Your task to perform on an android device: check storage Image 0: 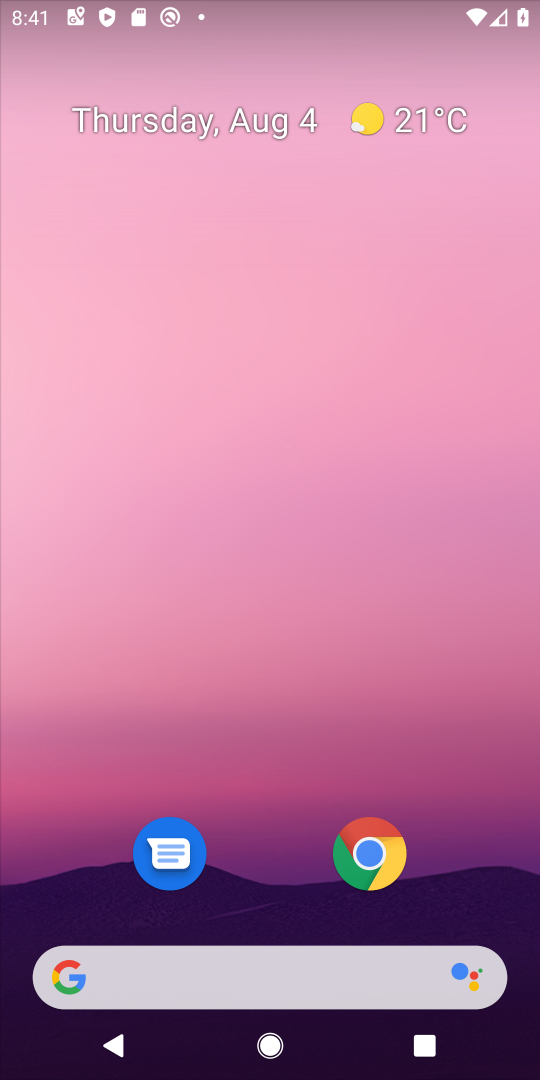
Step 0: drag from (237, 712) to (246, 147)
Your task to perform on an android device: check storage Image 1: 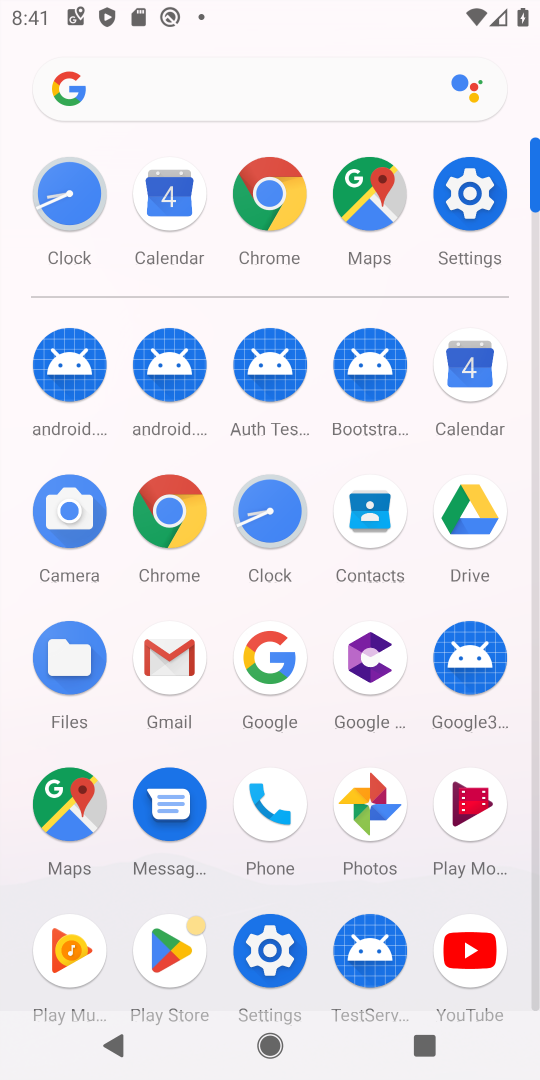
Step 1: click (491, 189)
Your task to perform on an android device: check storage Image 2: 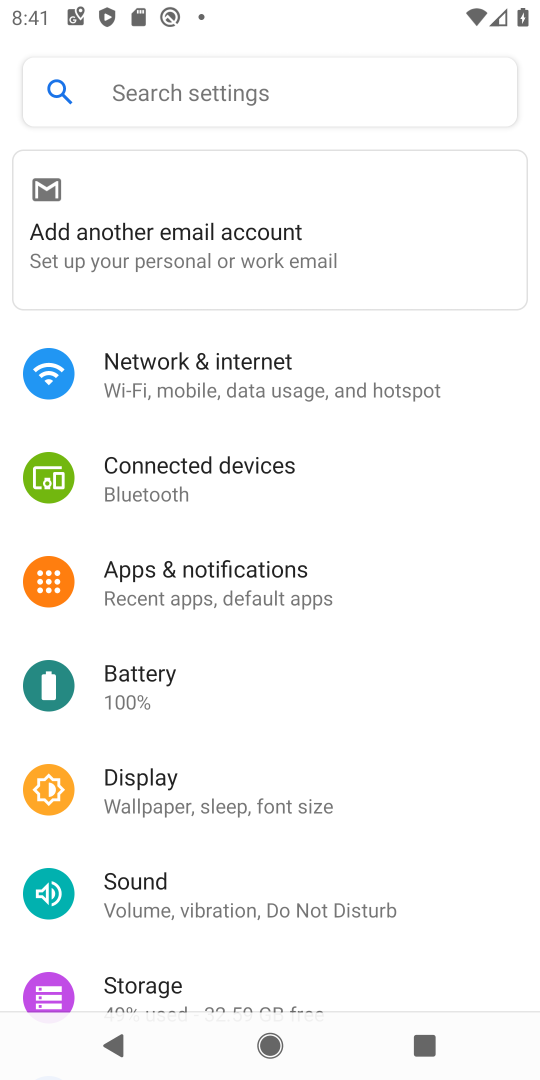
Step 2: click (157, 989)
Your task to perform on an android device: check storage Image 3: 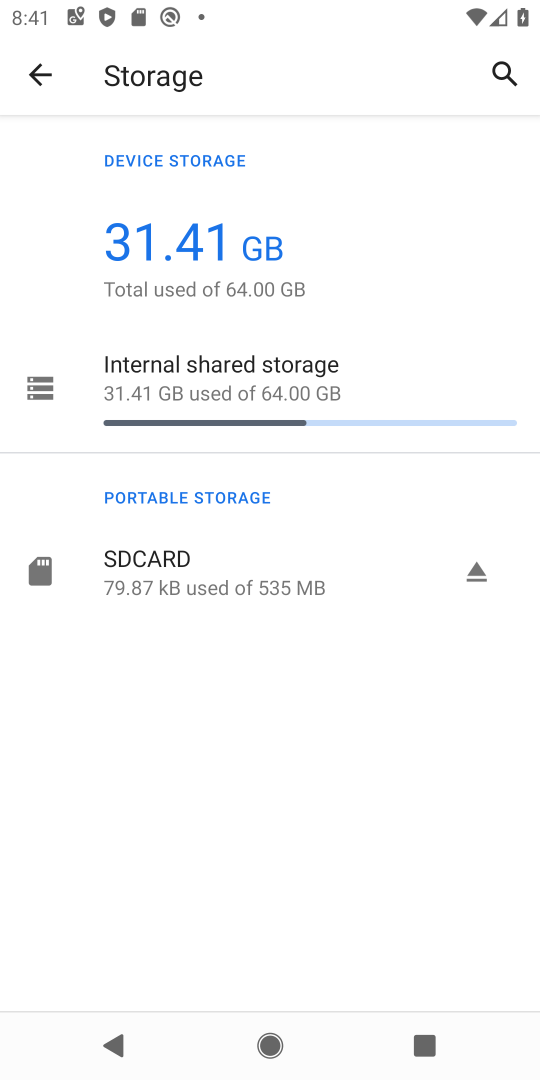
Step 3: task complete